Your task to perform on an android device: all mails in gmail Image 0: 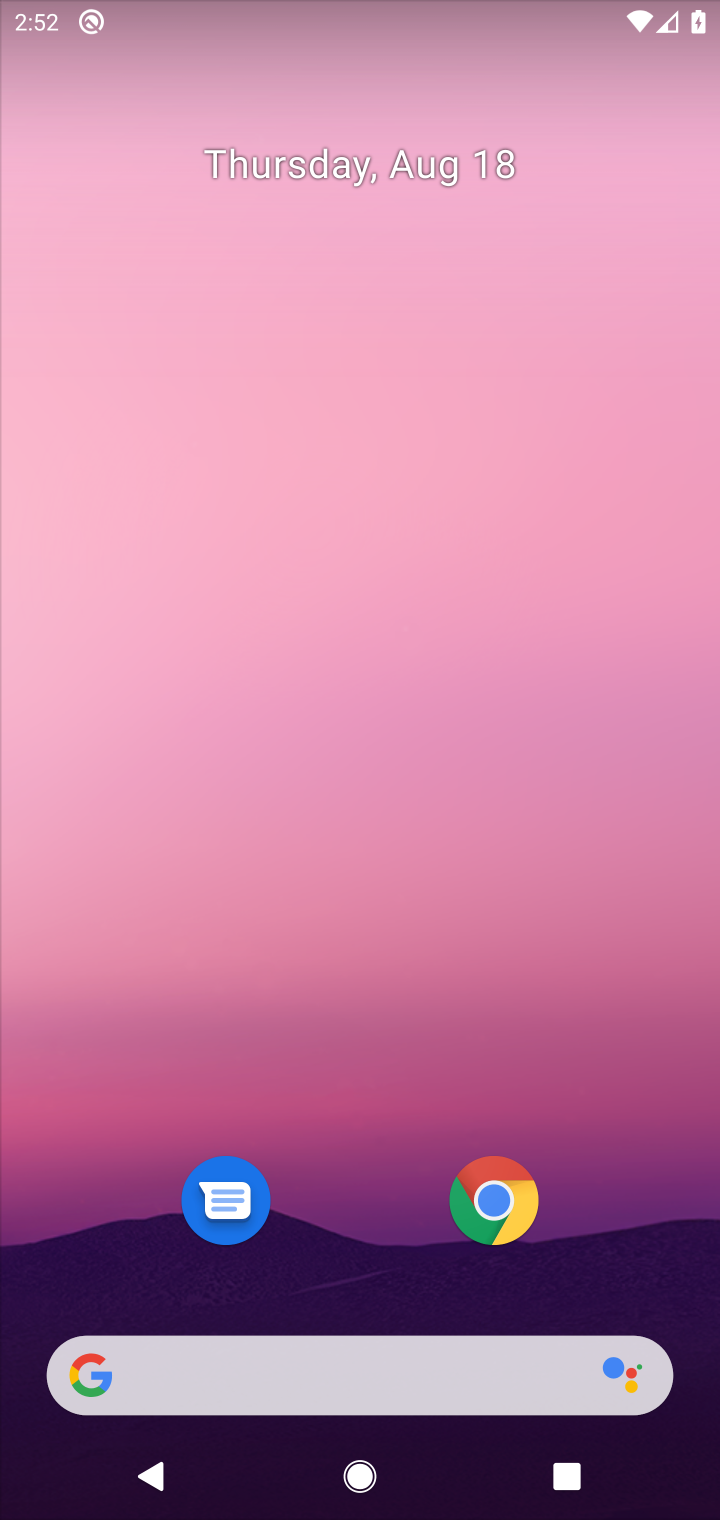
Step 0: drag from (305, 1209) to (386, 356)
Your task to perform on an android device: all mails in gmail Image 1: 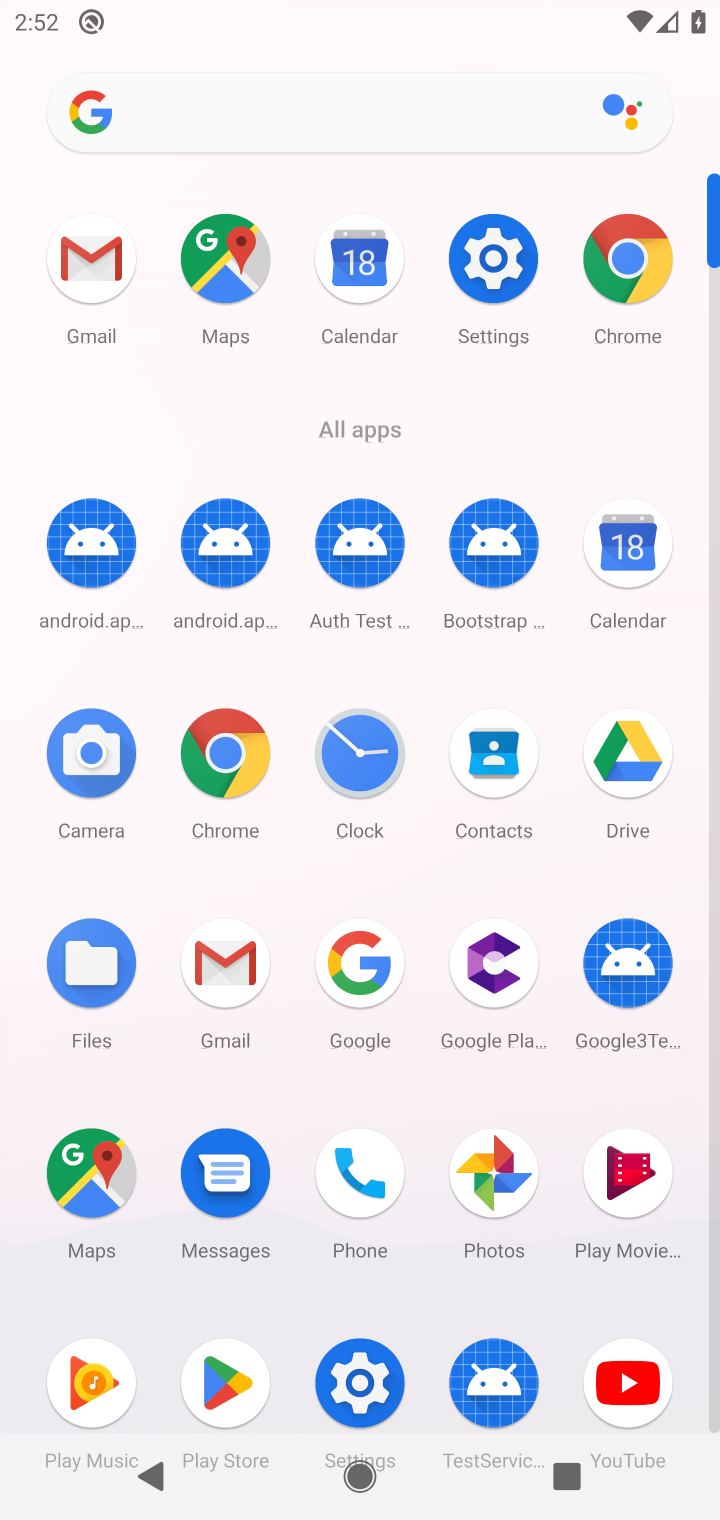
Step 1: click (228, 953)
Your task to perform on an android device: all mails in gmail Image 2: 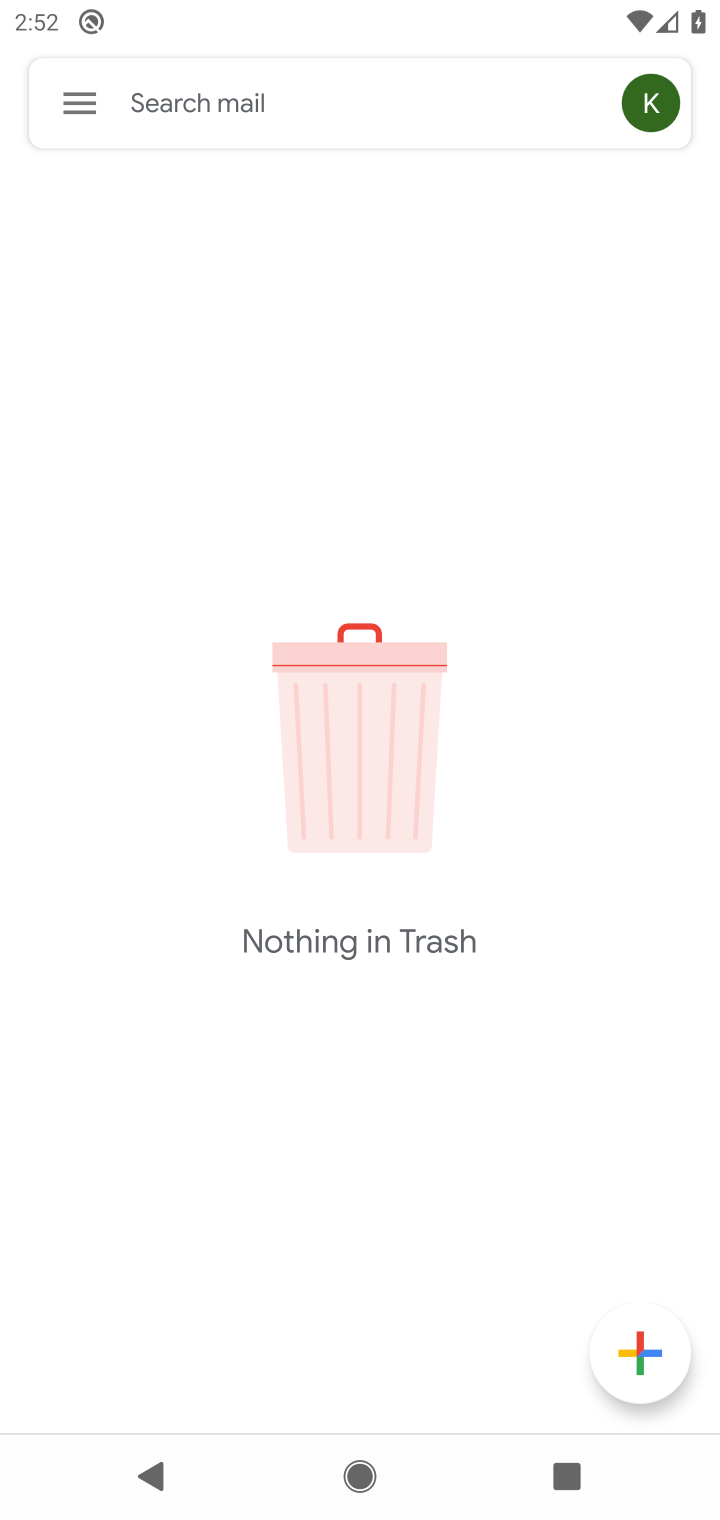
Step 2: click (99, 104)
Your task to perform on an android device: all mails in gmail Image 3: 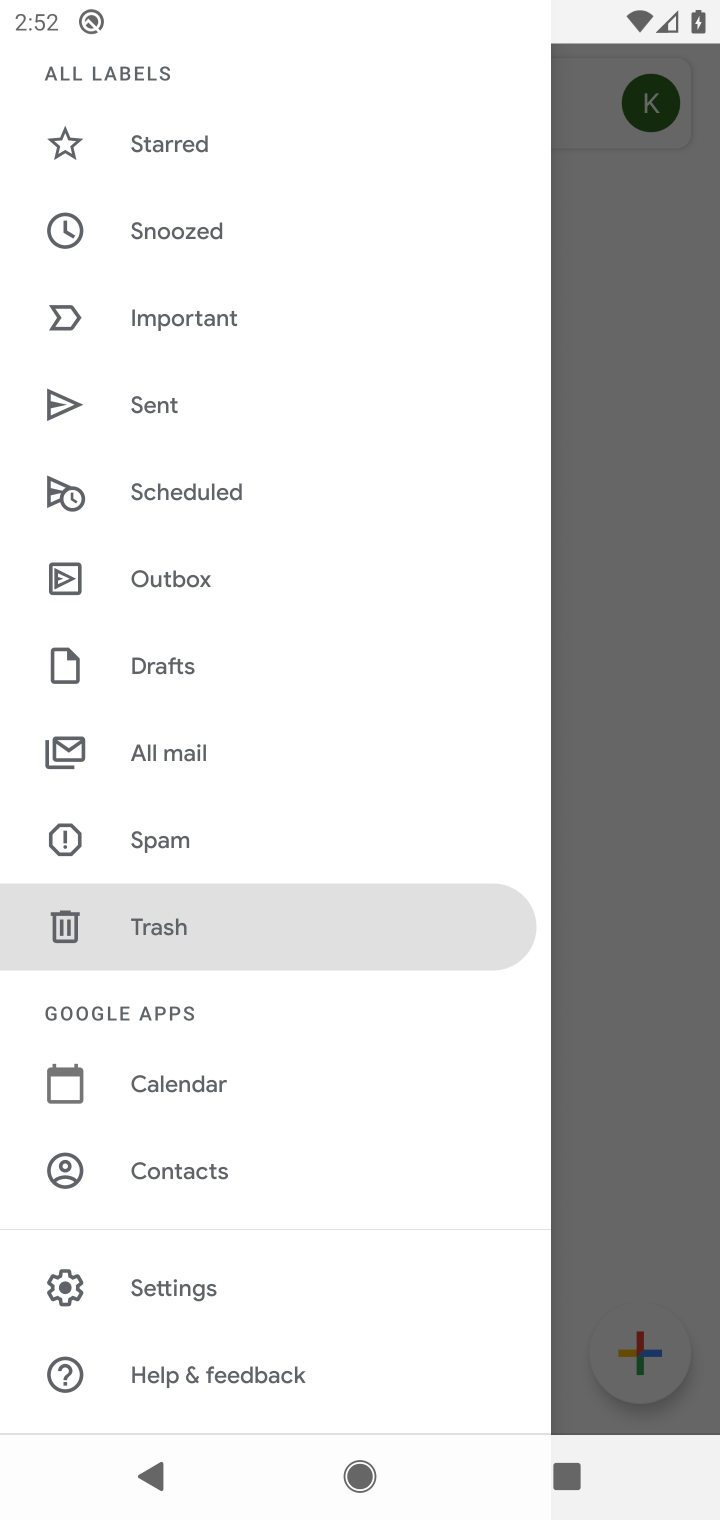
Step 3: click (155, 758)
Your task to perform on an android device: all mails in gmail Image 4: 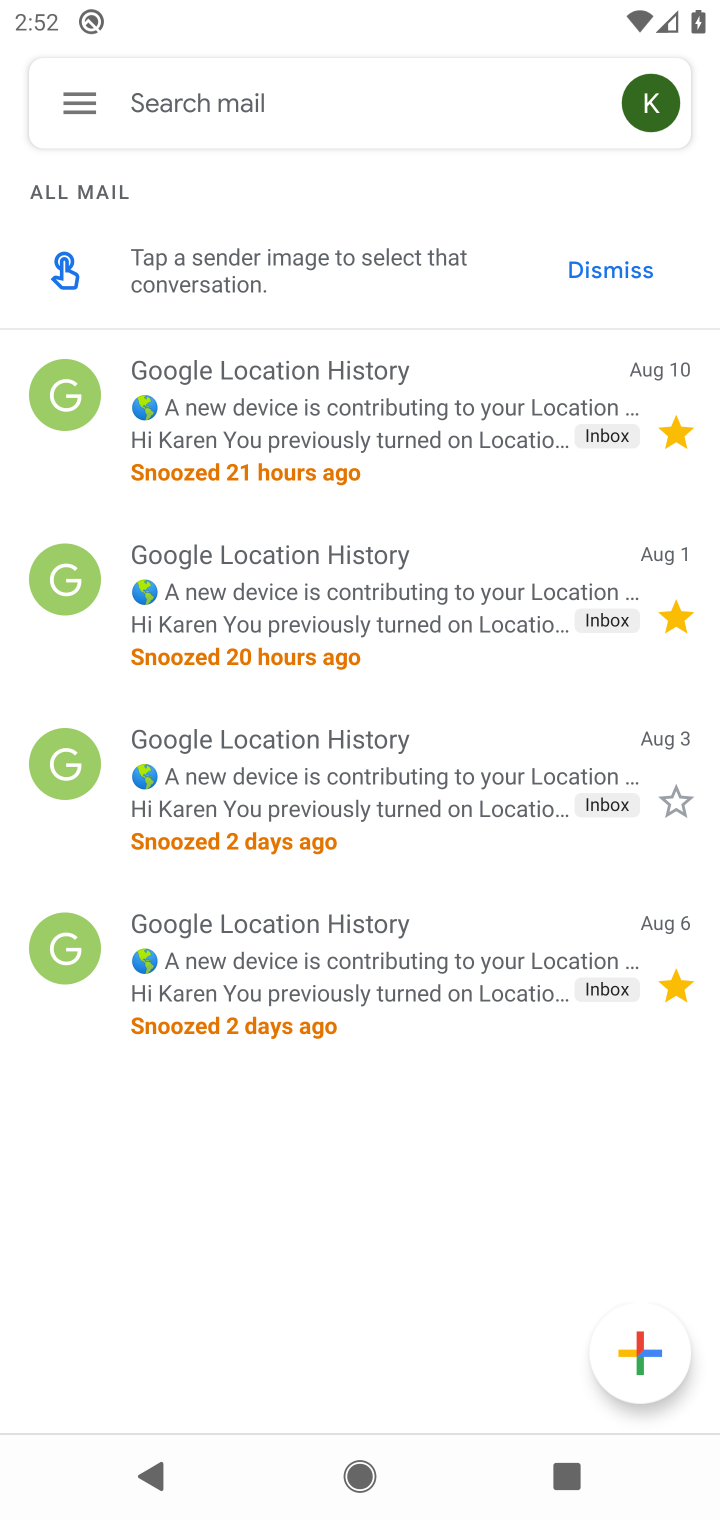
Step 4: click (86, 95)
Your task to perform on an android device: all mails in gmail Image 5: 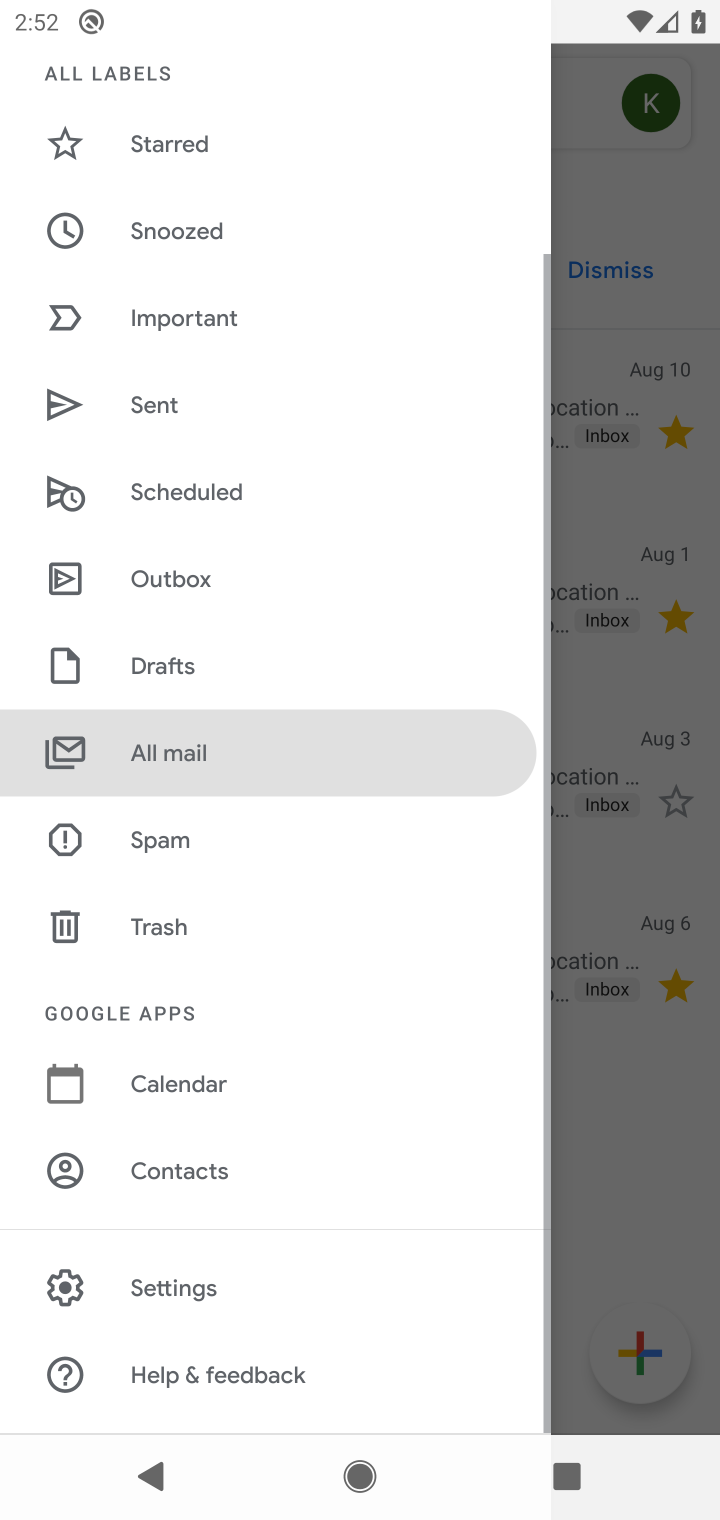
Step 5: click (605, 178)
Your task to perform on an android device: all mails in gmail Image 6: 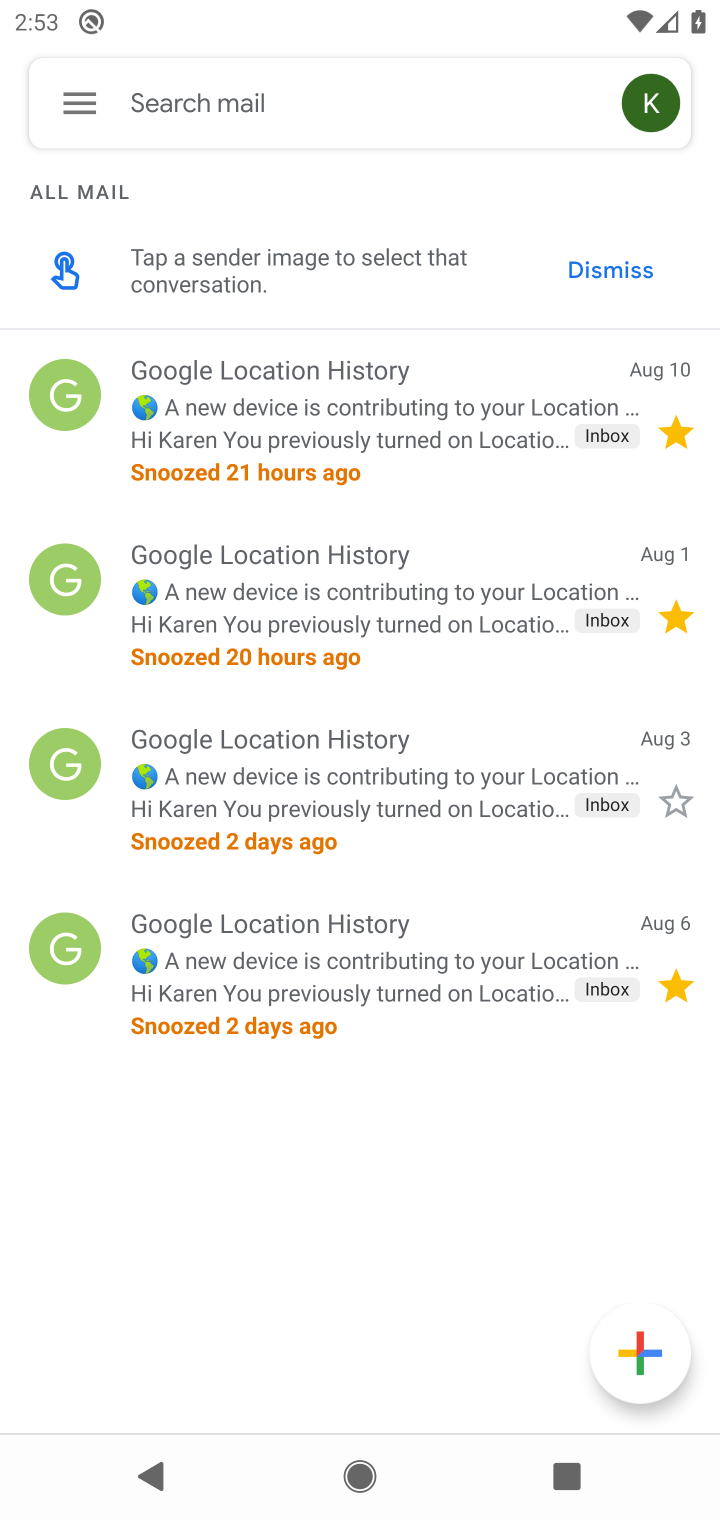
Step 6: task complete